Your task to perform on an android device: Open Google Chrome and click the shortcut for Amazon.com Image 0: 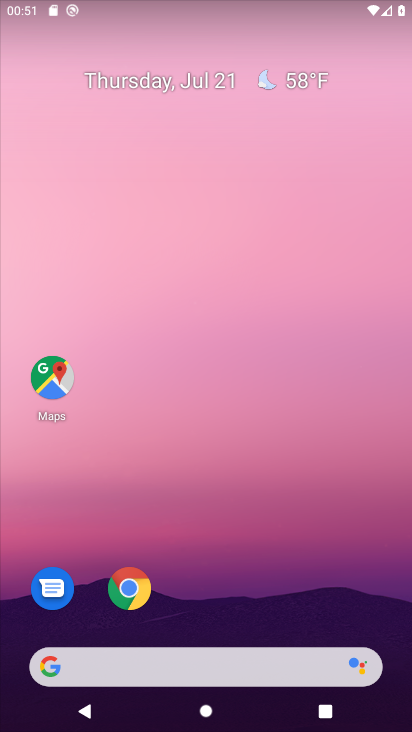
Step 0: drag from (221, 479) to (224, 48)
Your task to perform on an android device: Open Google Chrome and click the shortcut for Amazon.com Image 1: 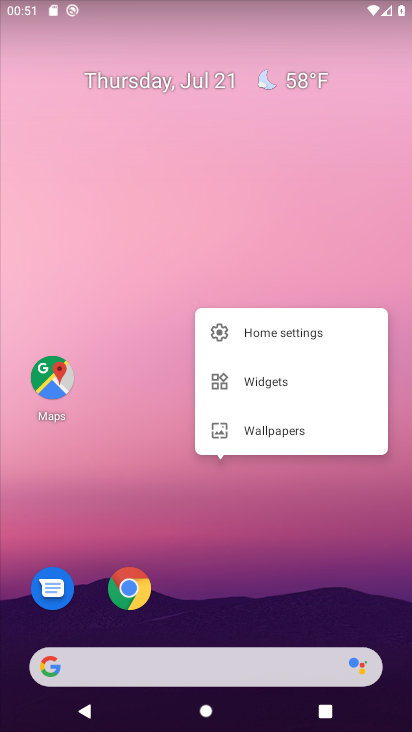
Step 1: click (137, 606)
Your task to perform on an android device: Open Google Chrome and click the shortcut for Amazon.com Image 2: 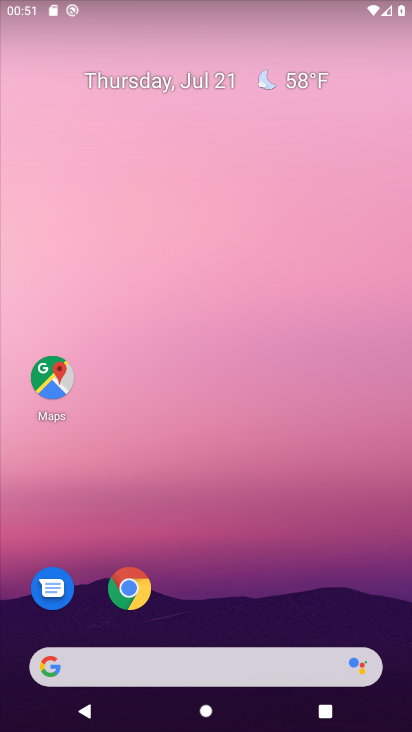
Step 2: click (134, 588)
Your task to perform on an android device: Open Google Chrome and click the shortcut for Amazon.com Image 3: 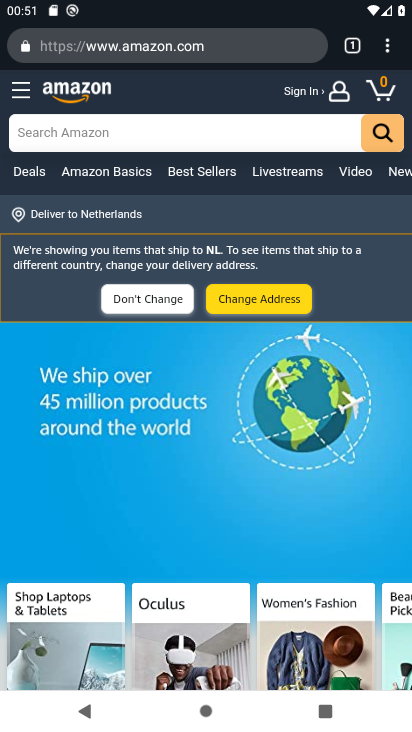
Step 3: click (389, 49)
Your task to perform on an android device: Open Google Chrome and click the shortcut for Amazon.com Image 4: 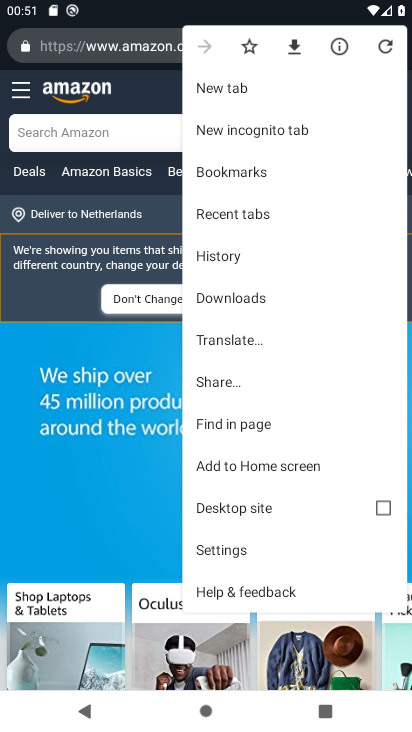
Step 4: click (220, 90)
Your task to perform on an android device: Open Google Chrome and click the shortcut for Amazon.com Image 5: 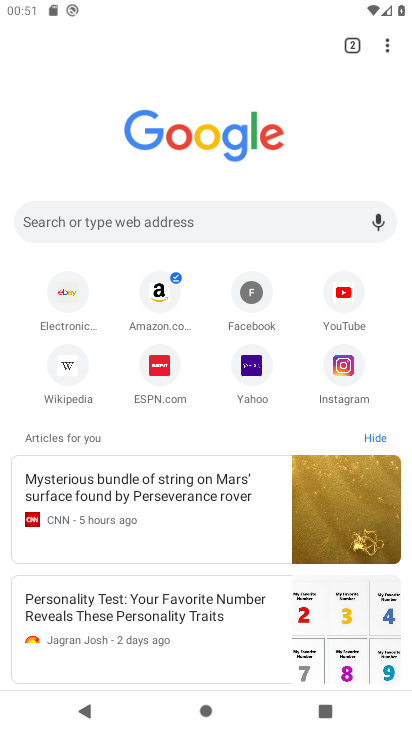
Step 5: click (155, 308)
Your task to perform on an android device: Open Google Chrome and click the shortcut for Amazon.com Image 6: 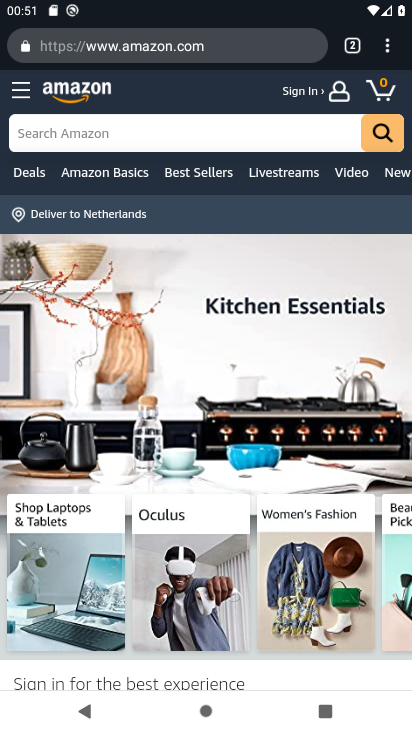
Step 6: task complete